Your task to perform on an android device: change timer sound Image 0: 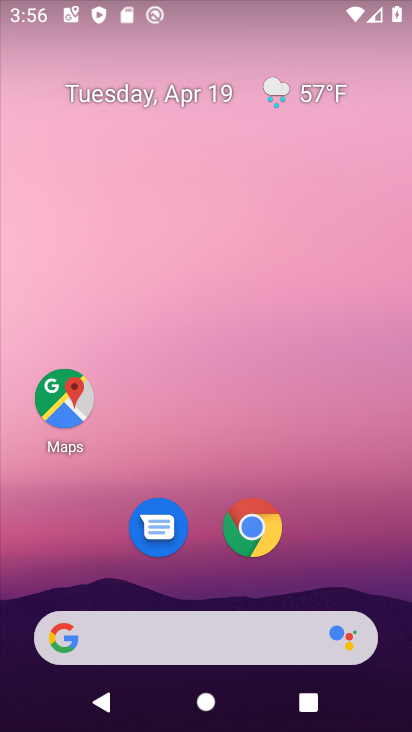
Step 0: drag from (384, 566) to (392, 104)
Your task to perform on an android device: change timer sound Image 1: 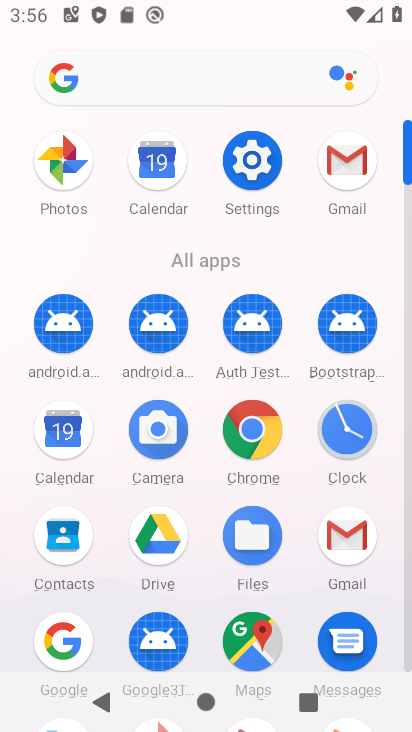
Step 1: click (344, 426)
Your task to perform on an android device: change timer sound Image 2: 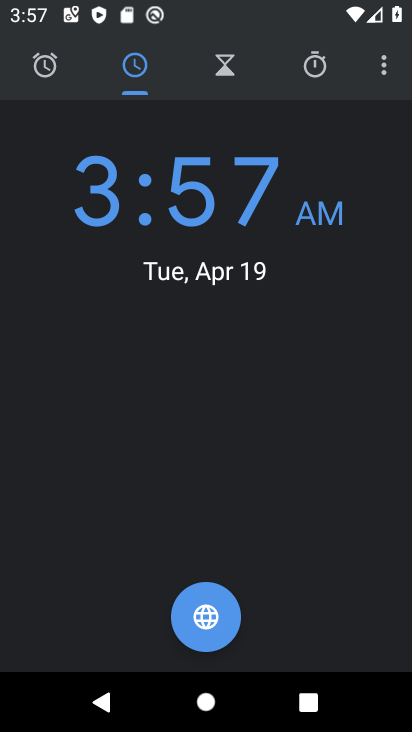
Step 2: click (384, 69)
Your task to perform on an android device: change timer sound Image 3: 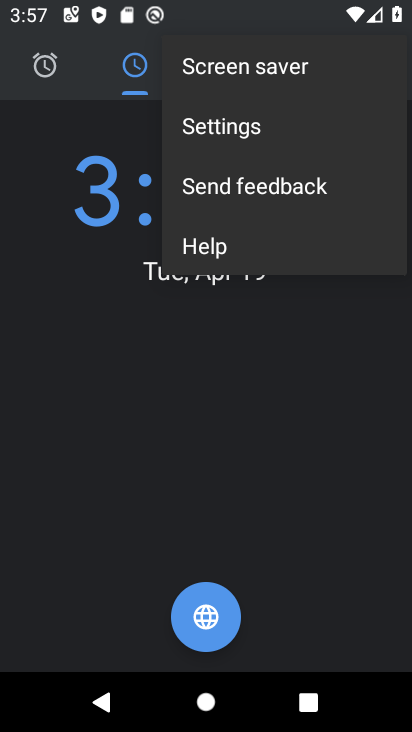
Step 3: click (206, 124)
Your task to perform on an android device: change timer sound Image 4: 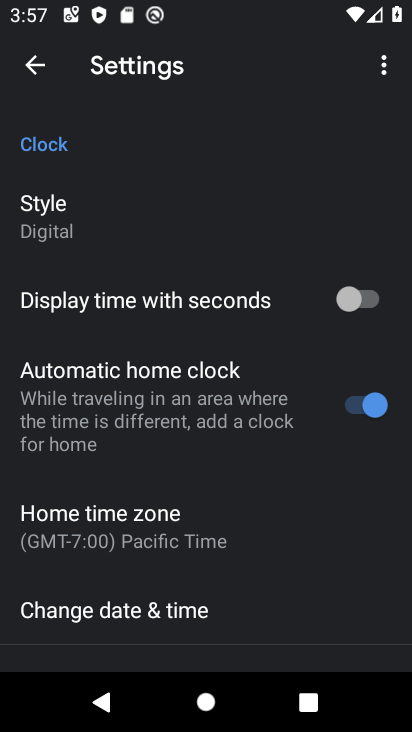
Step 4: drag from (201, 531) to (205, 229)
Your task to perform on an android device: change timer sound Image 5: 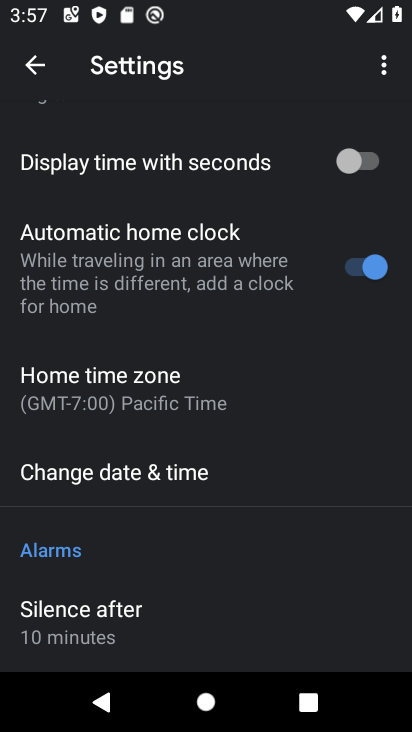
Step 5: drag from (232, 468) to (230, 350)
Your task to perform on an android device: change timer sound Image 6: 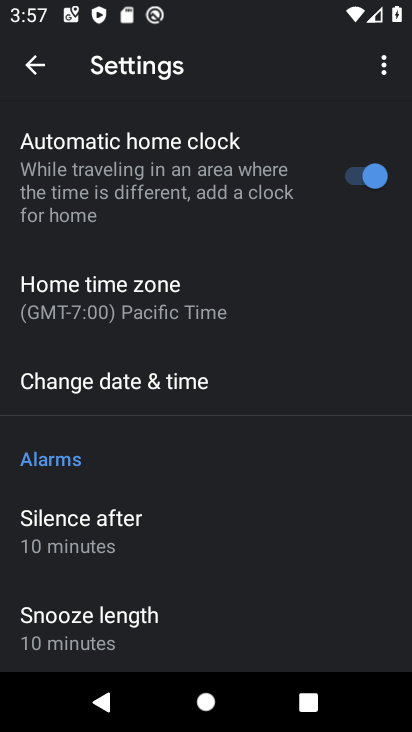
Step 6: drag from (245, 571) to (258, 194)
Your task to perform on an android device: change timer sound Image 7: 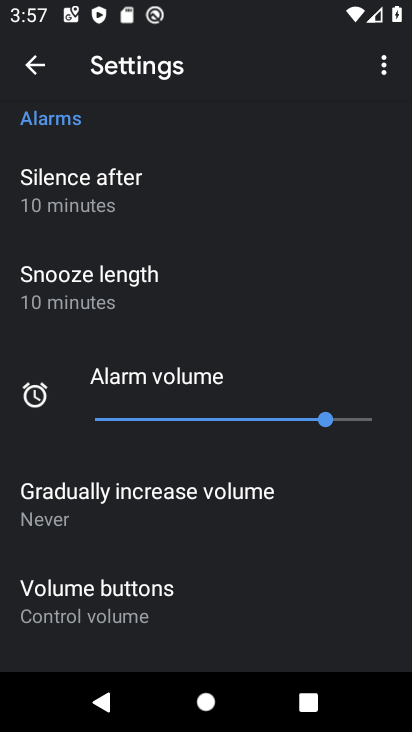
Step 7: drag from (211, 495) to (263, 128)
Your task to perform on an android device: change timer sound Image 8: 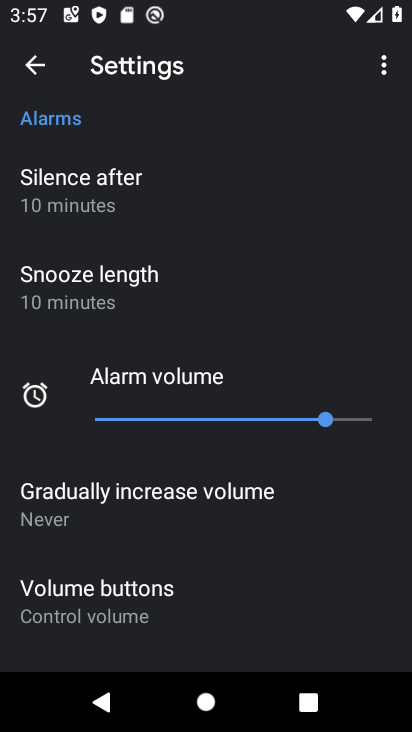
Step 8: drag from (229, 600) to (296, 180)
Your task to perform on an android device: change timer sound Image 9: 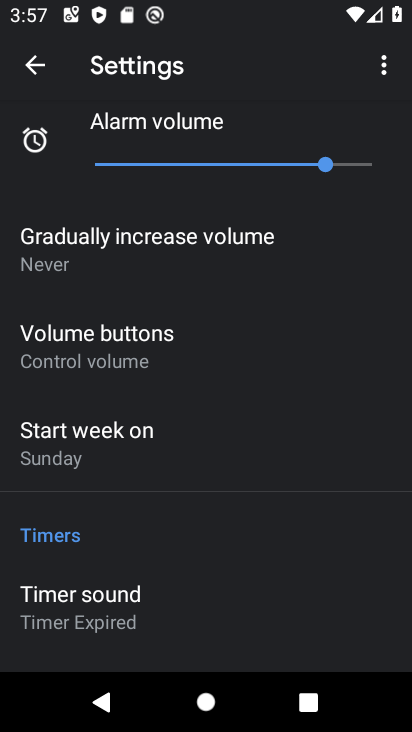
Step 9: click (76, 614)
Your task to perform on an android device: change timer sound Image 10: 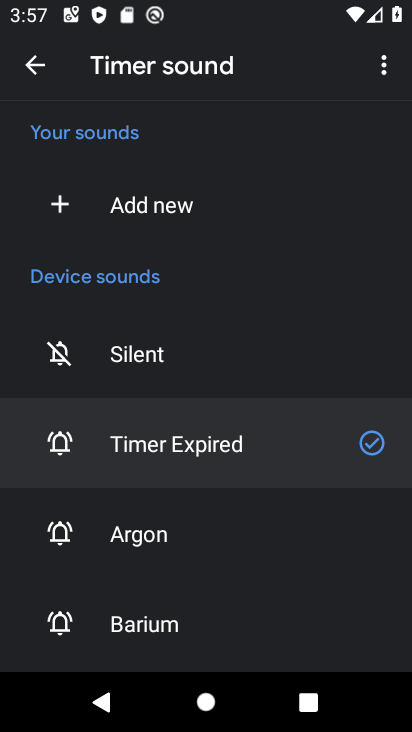
Step 10: drag from (202, 628) to (279, 254)
Your task to perform on an android device: change timer sound Image 11: 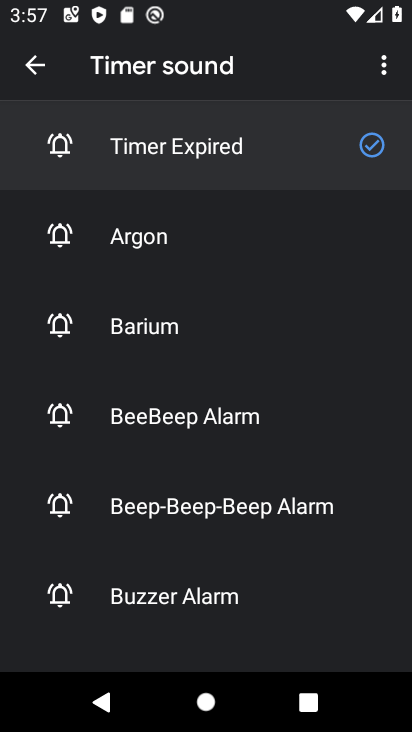
Step 11: click (201, 427)
Your task to perform on an android device: change timer sound Image 12: 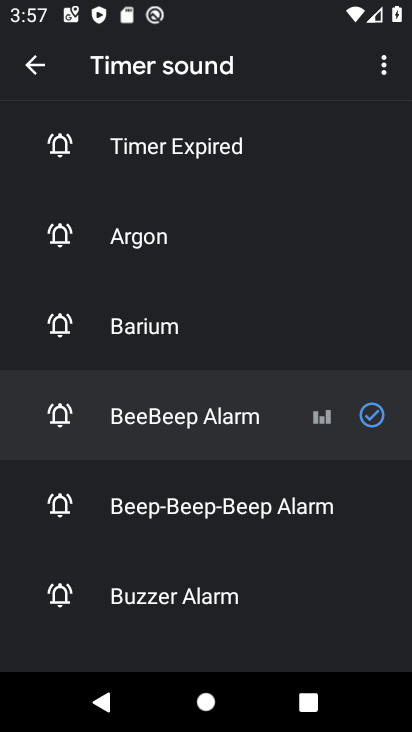
Step 12: task complete